Your task to perform on an android device: Go to network settings Image 0: 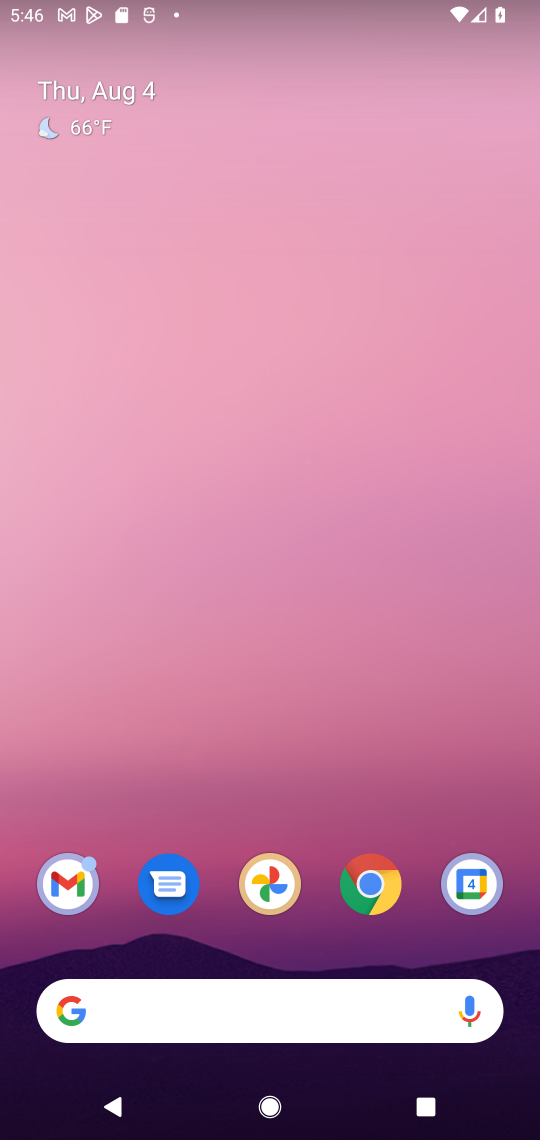
Step 0: drag from (324, 979) to (331, 25)
Your task to perform on an android device: Go to network settings Image 1: 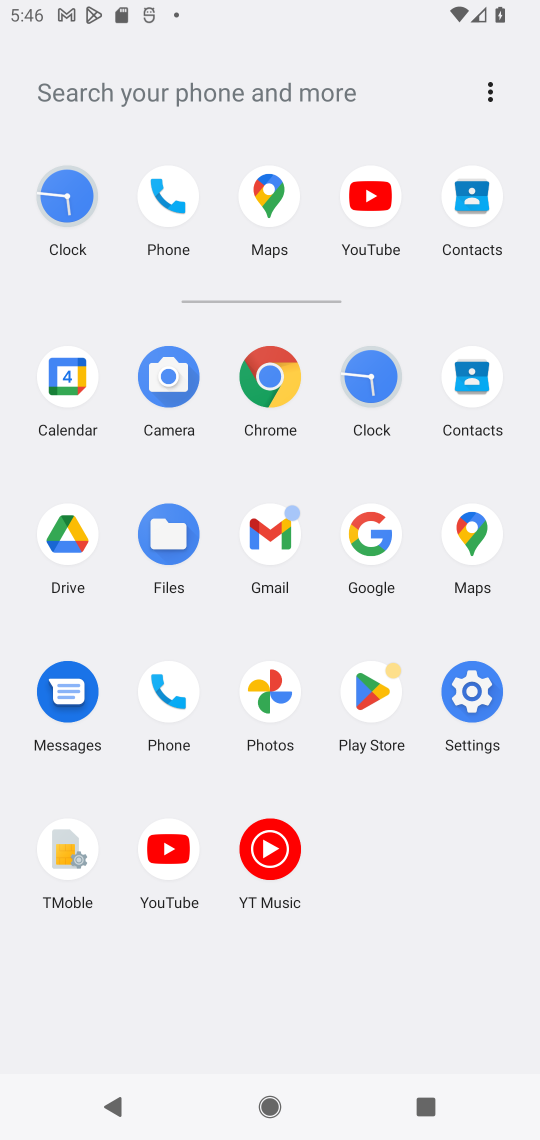
Step 1: click (478, 699)
Your task to perform on an android device: Go to network settings Image 2: 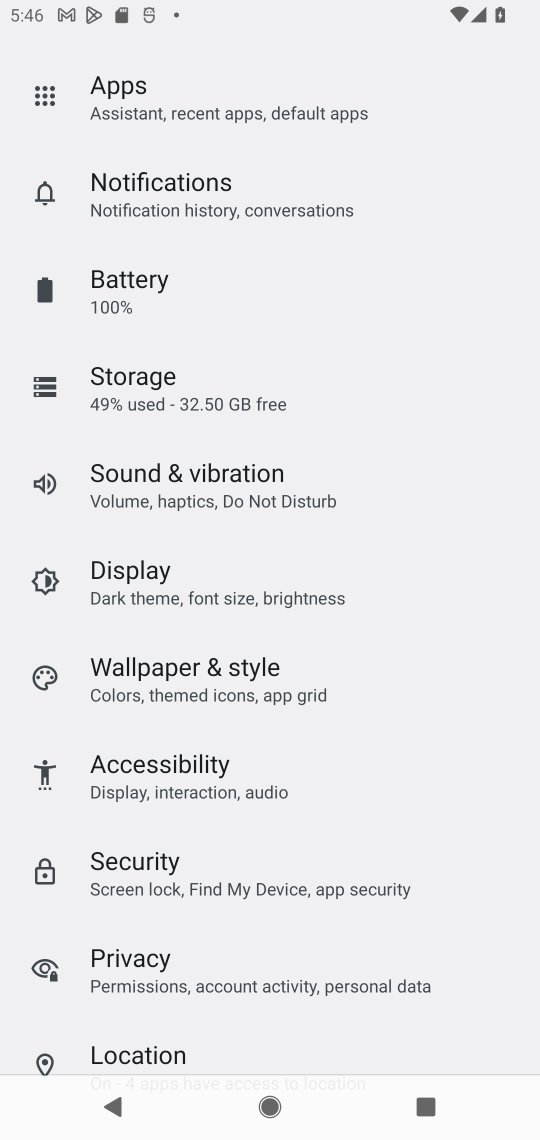
Step 2: drag from (285, 199) to (341, 730)
Your task to perform on an android device: Go to network settings Image 3: 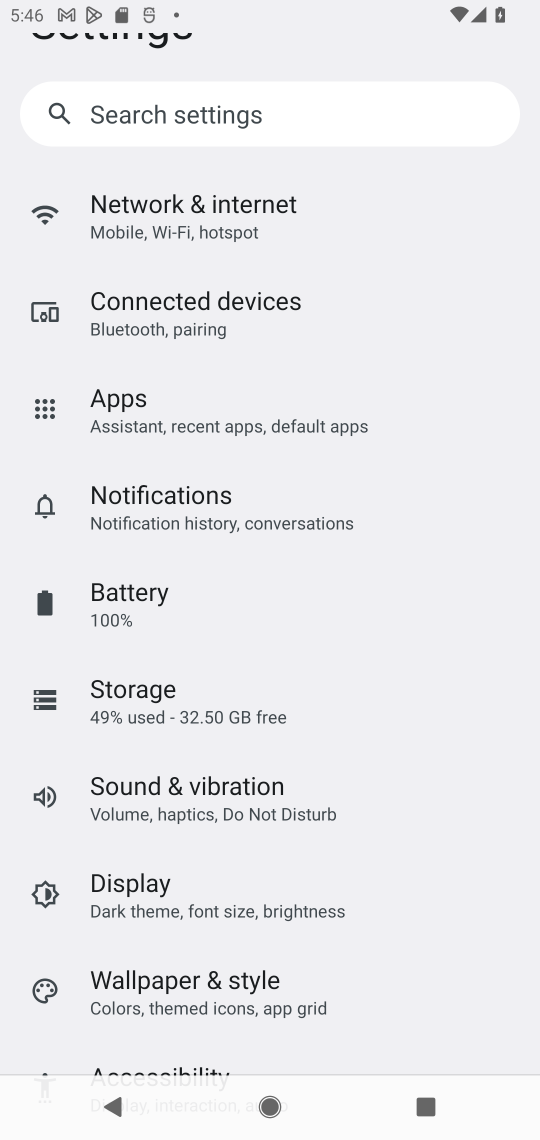
Step 3: click (343, 240)
Your task to perform on an android device: Go to network settings Image 4: 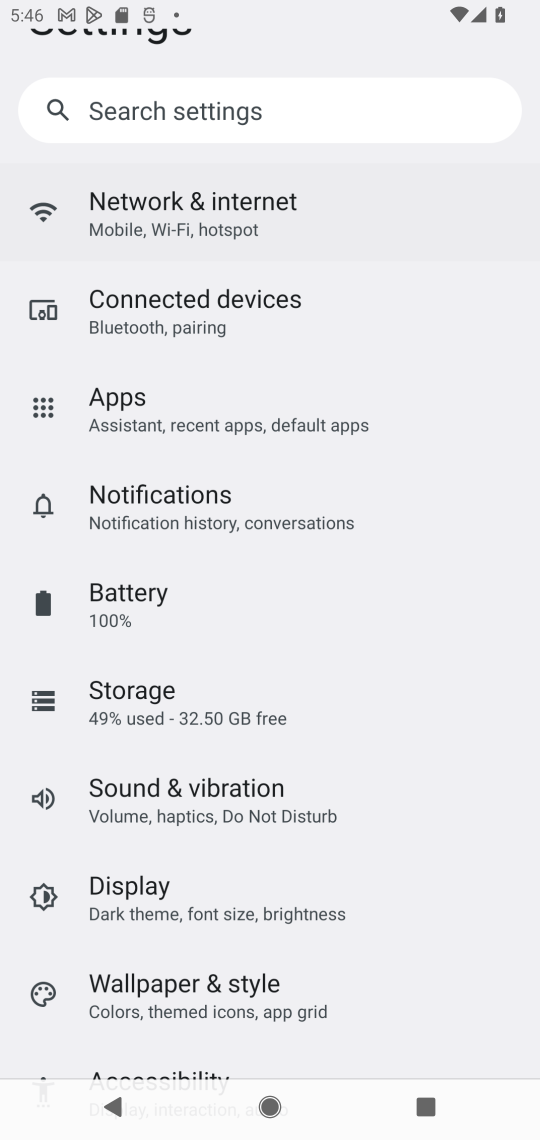
Step 4: task complete